Your task to perform on an android device: Open Google Chrome and click the shortcut for Amazon.com Image 0: 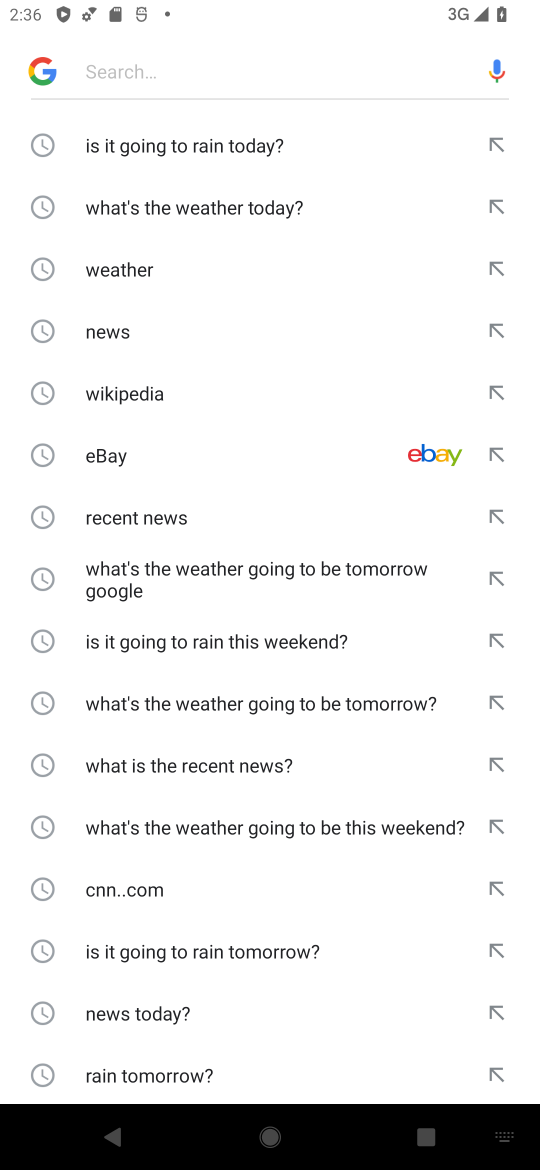
Step 0: press home button
Your task to perform on an android device: Open Google Chrome and click the shortcut for Amazon.com Image 1: 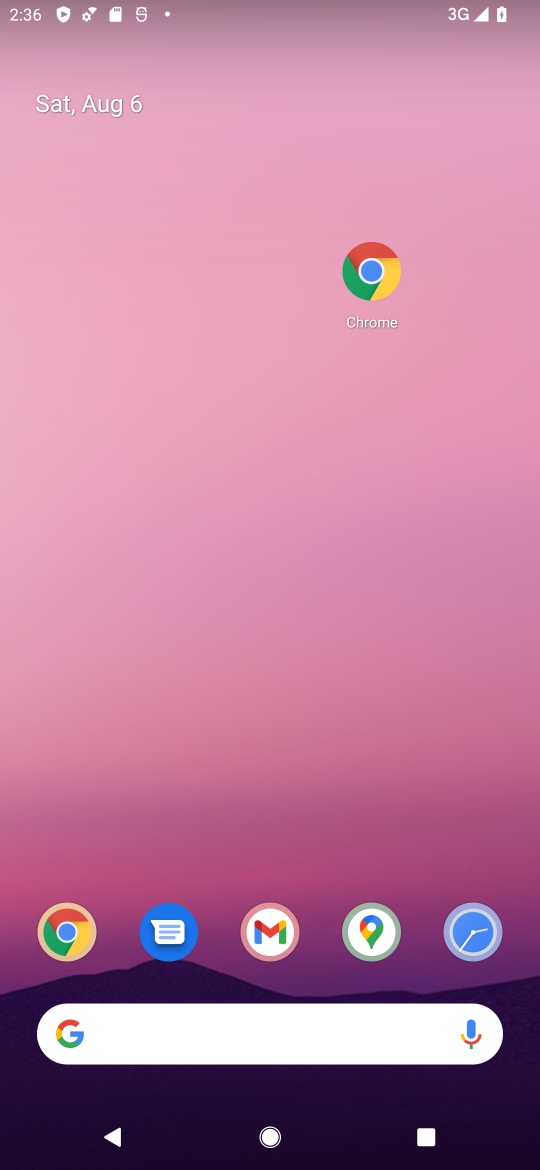
Step 1: drag from (314, 967) to (314, 21)
Your task to perform on an android device: Open Google Chrome and click the shortcut for Amazon.com Image 2: 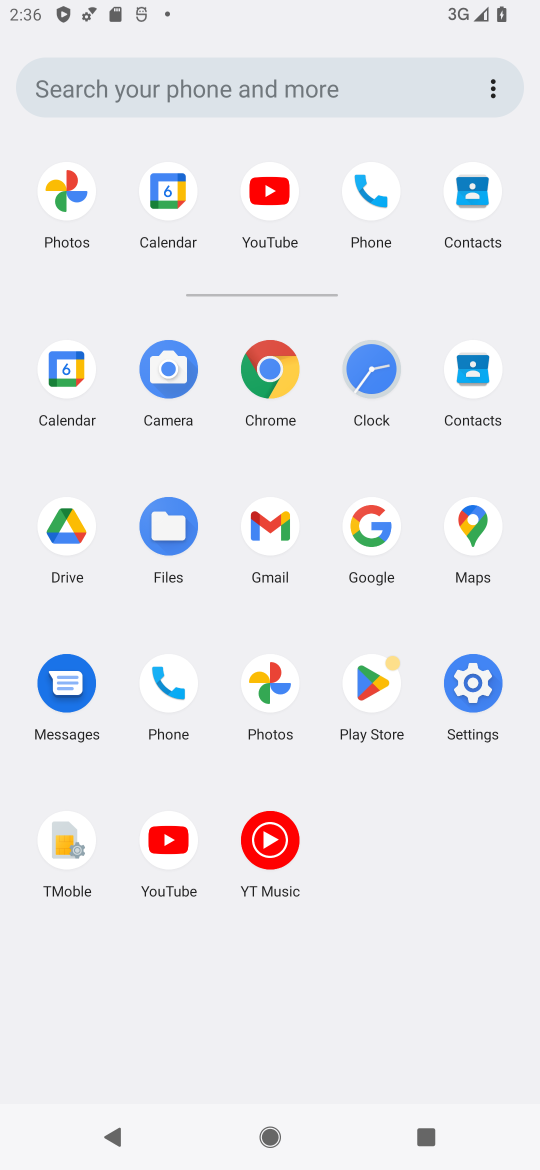
Step 2: click (268, 356)
Your task to perform on an android device: Open Google Chrome and click the shortcut for Amazon.com Image 3: 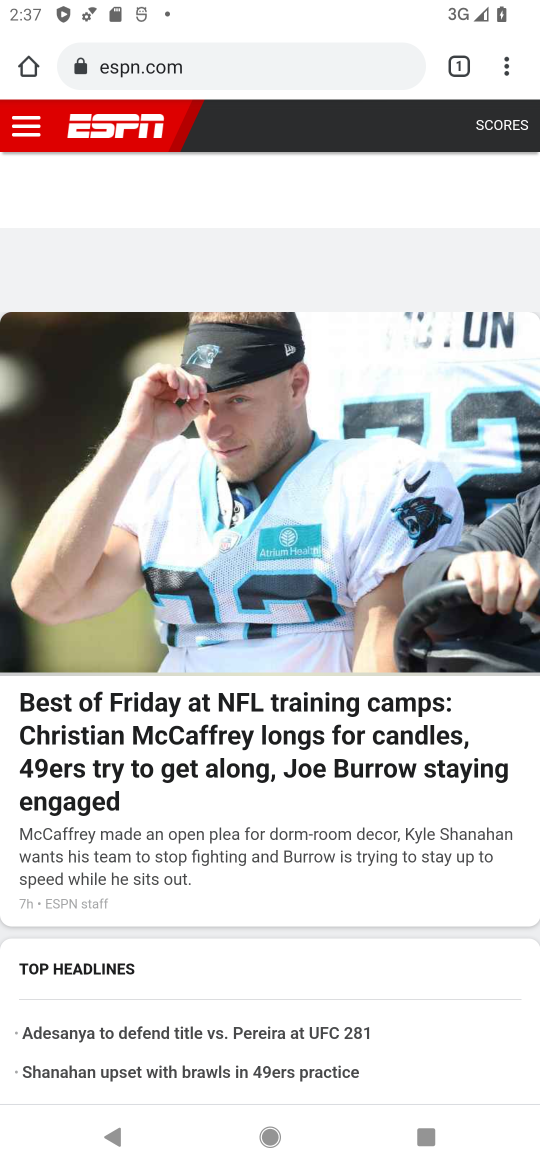
Step 3: press home button
Your task to perform on an android device: Open Google Chrome and click the shortcut for Amazon.com Image 4: 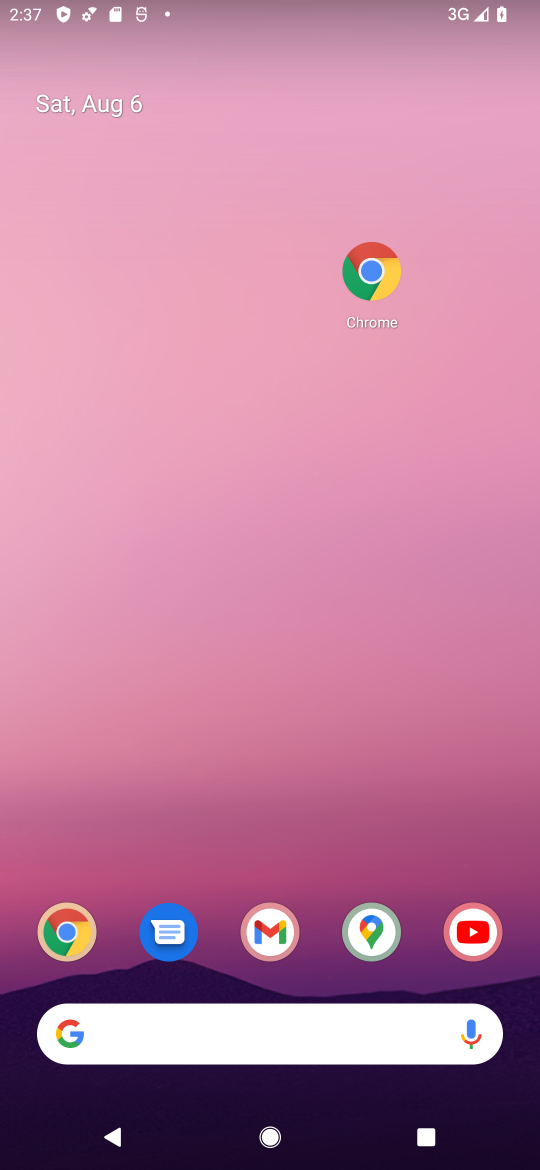
Step 4: drag from (353, 975) to (420, 93)
Your task to perform on an android device: Open Google Chrome and click the shortcut for Amazon.com Image 5: 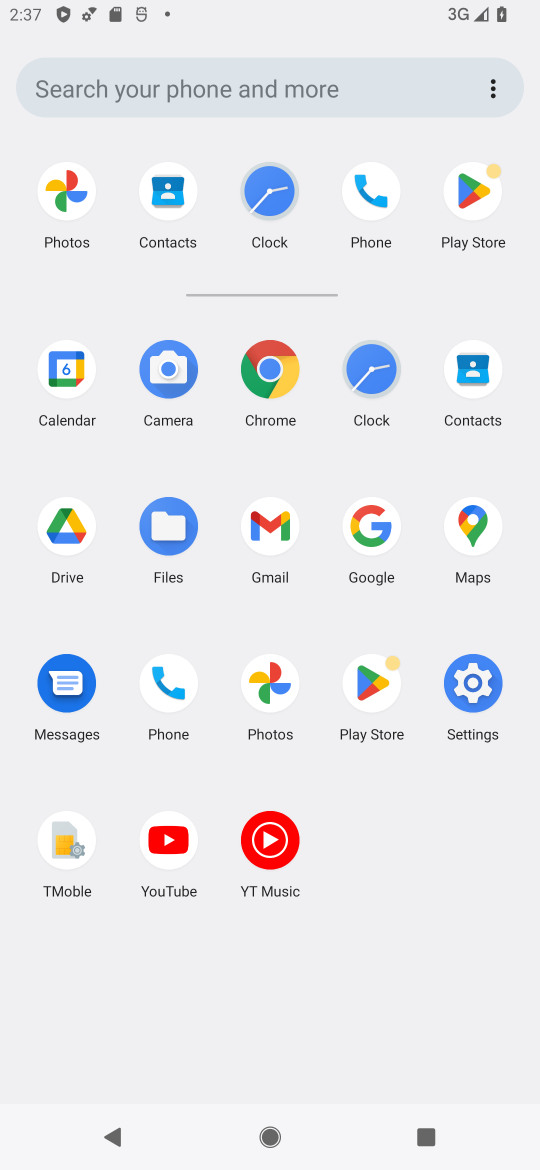
Step 5: click (280, 364)
Your task to perform on an android device: Open Google Chrome and click the shortcut for Amazon.com Image 6: 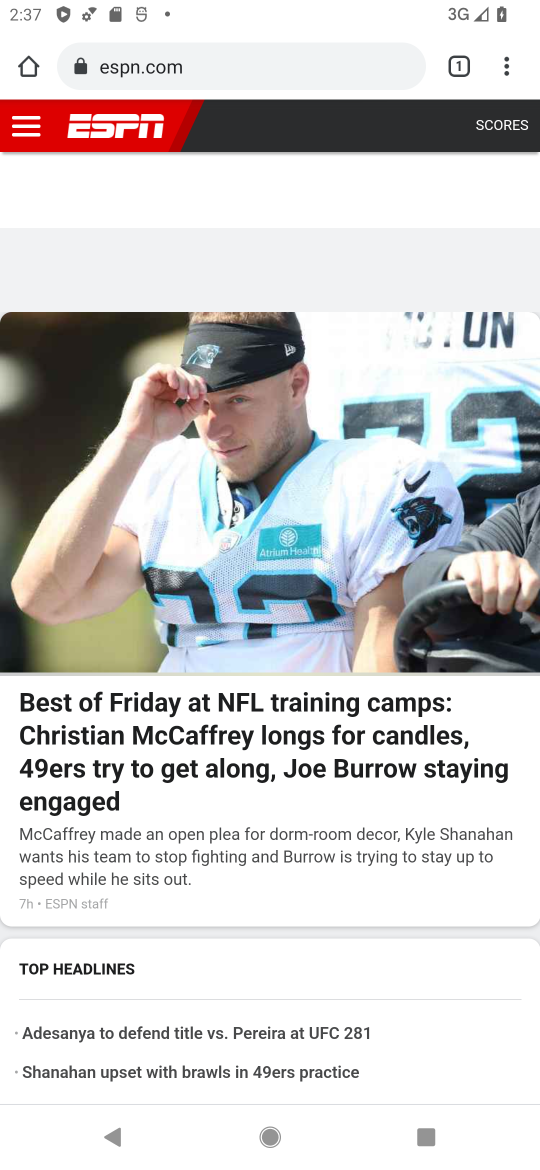
Step 6: drag from (509, 64) to (351, 197)
Your task to perform on an android device: Open Google Chrome and click the shortcut for Amazon.com Image 7: 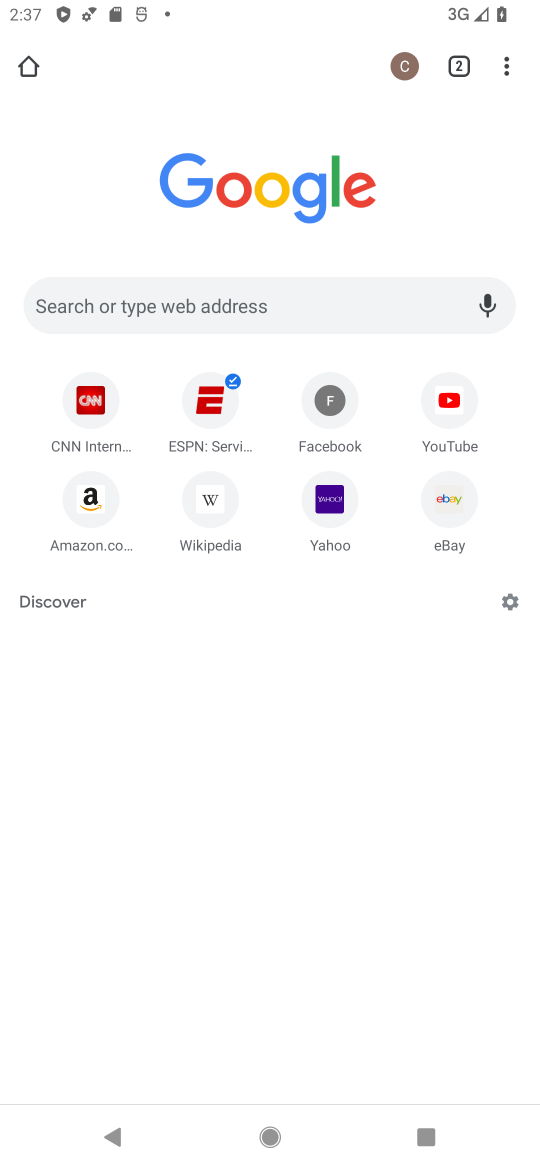
Step 7: click (70, 490)
Your task to perform on an android device: Open Google Chrome and click the shortcut for Amazon.com Image 8: 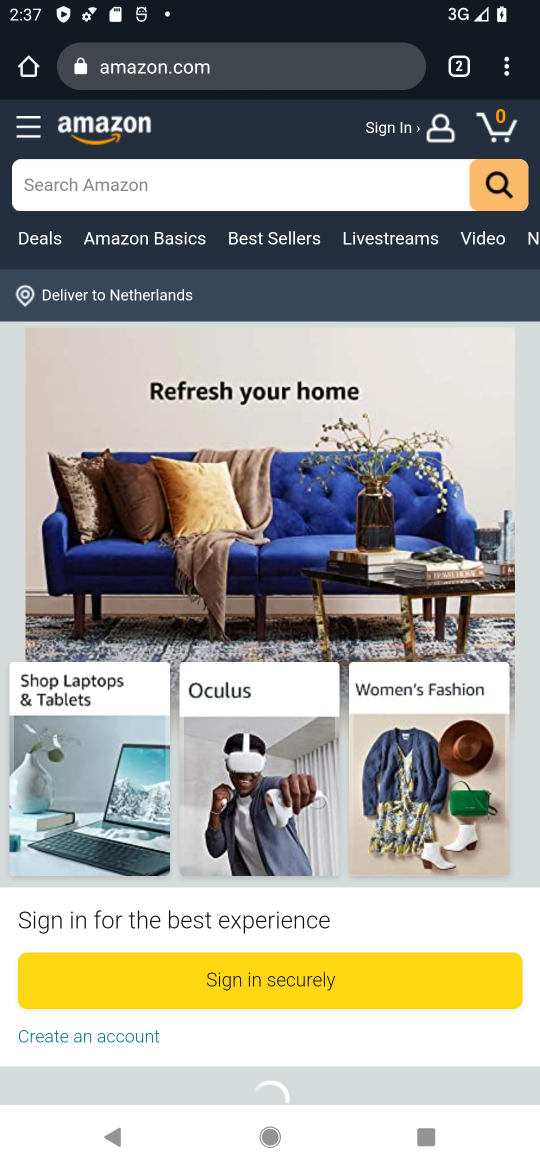
Step 8: task complete